Your task to perform on an android device: Check the news Image 0: 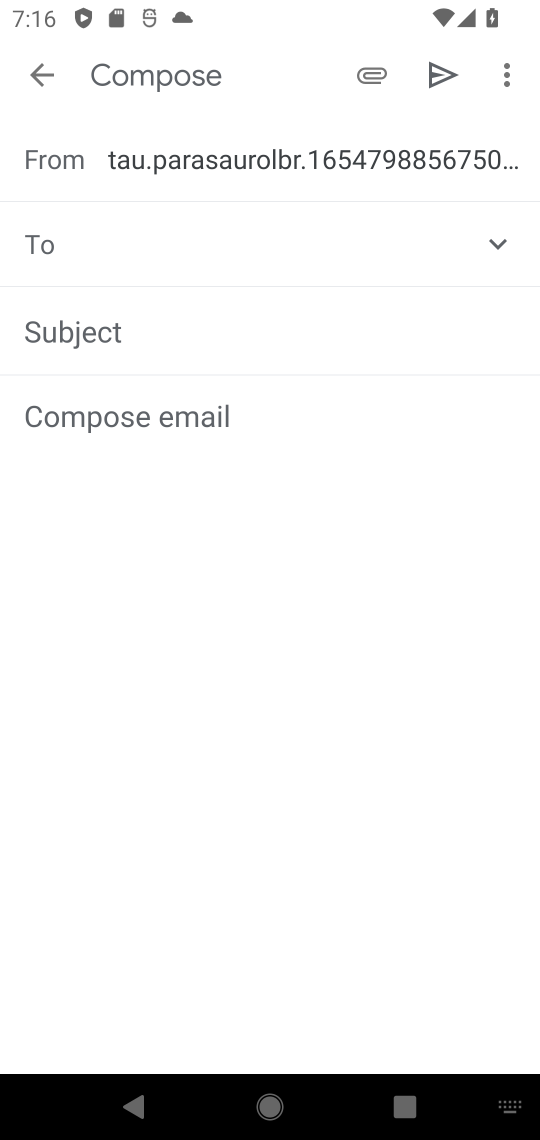
Step 0: press home button
Your task to perform on an android device: Check the news Image 1: 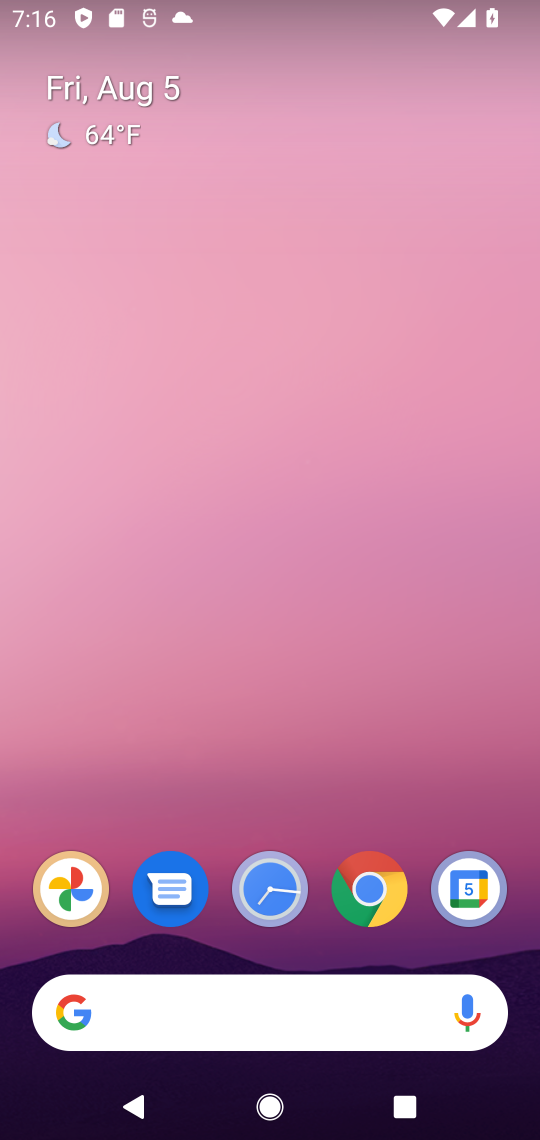
Step 1: drag from (273, 969) to (255, 198)
Your task to perform on an android device: Check the news Image 2: 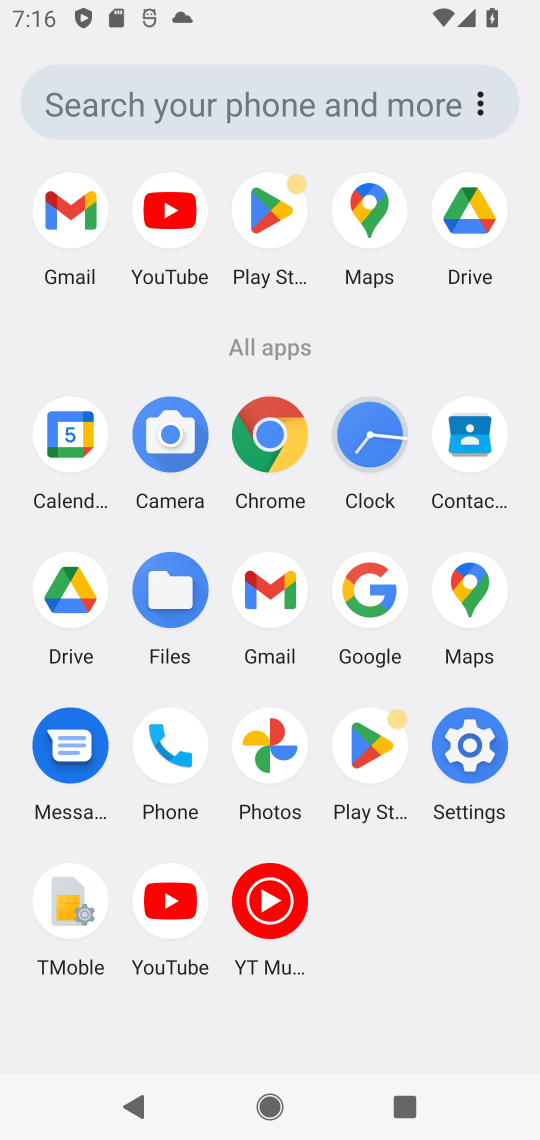
Step 2: click (376, 603)
Your task to perform on an android device: Check the news Image 3: 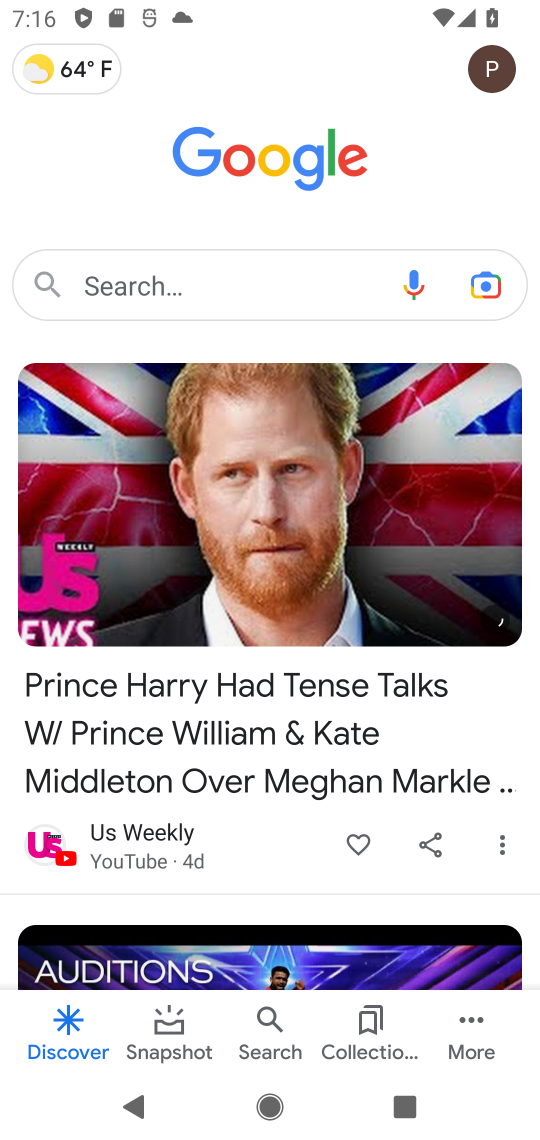
Step 3: click (211, 271)
Your task to perform on an android device: Check the news Image 4: 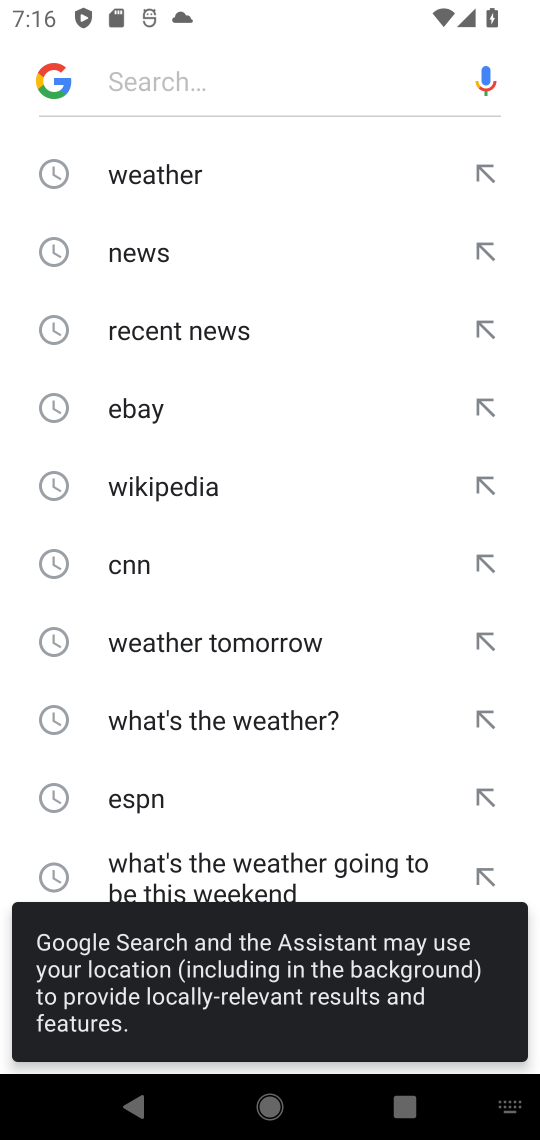
Step 4: click (167, 243)
Your task to perform on an android device: Check the news Image 5: 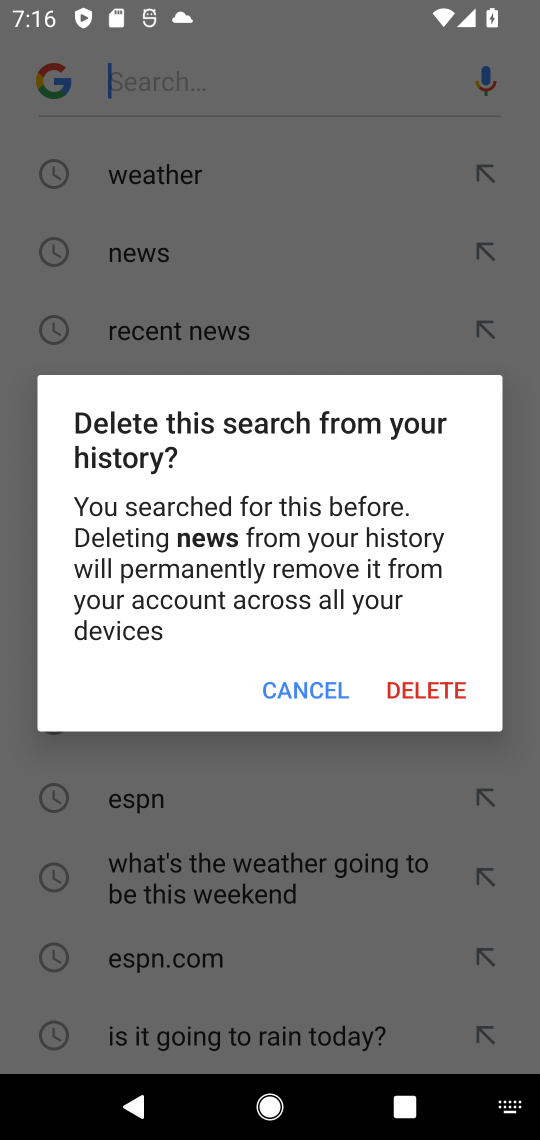
Step 5: click (134, 248)
Your task to perform on an android device: Check the news Image 6: 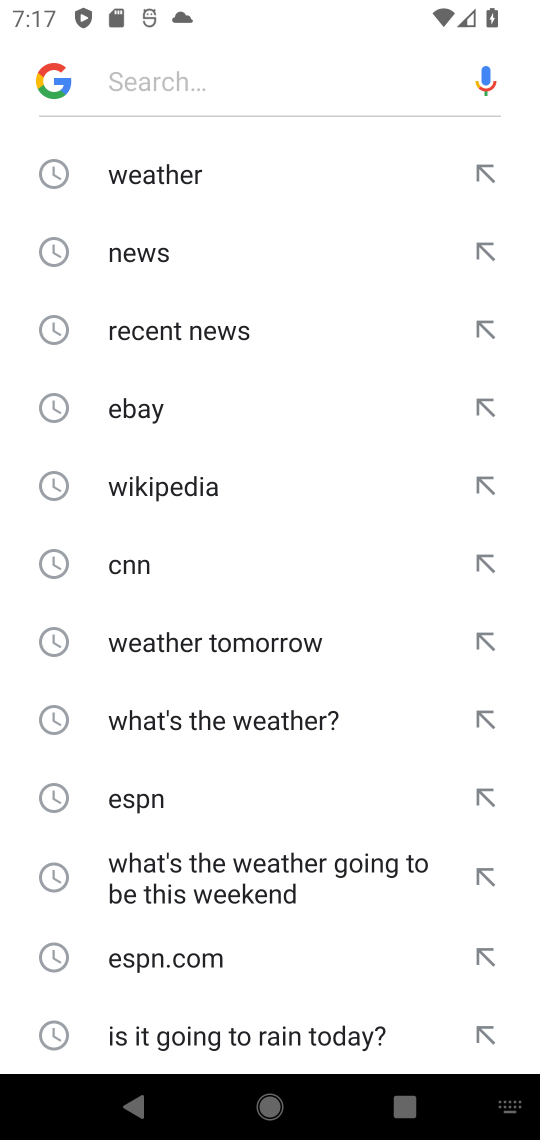
Step 6: click (134, 248)
Your task to perform on an android device: Check the news Image 7: 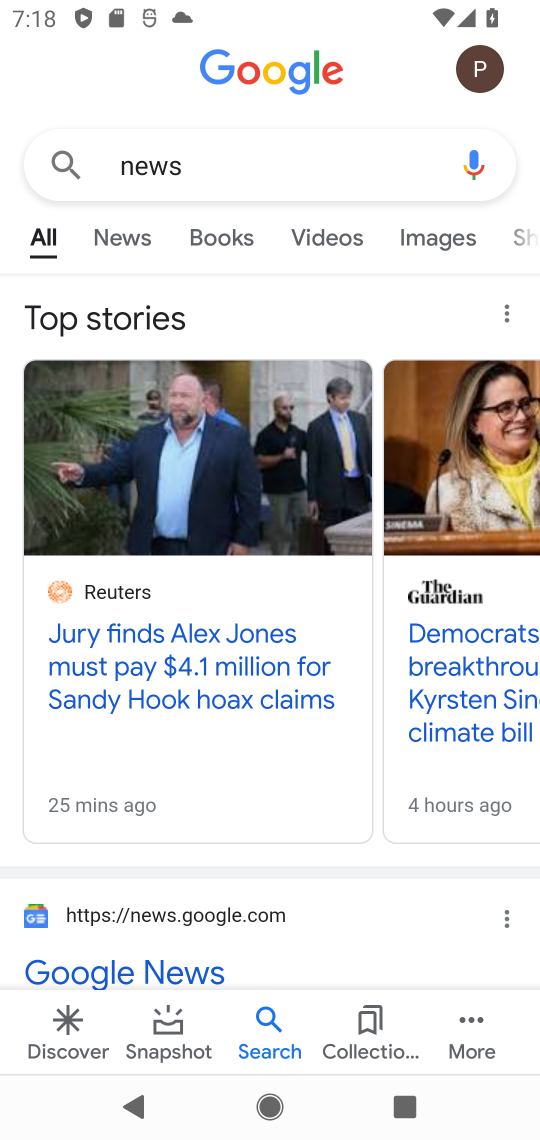
Step 7: task complete